Your task to perform on an android device: open app "Spotify" Image 0: 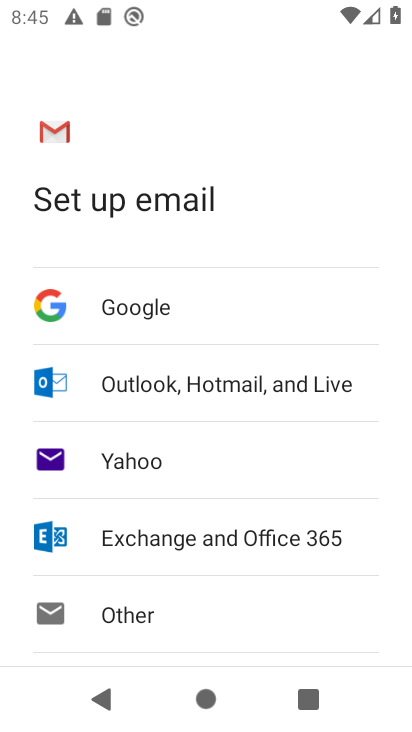
Step 0: press home button
Your task to perform on an android device: open app "Spotify" Image 1: 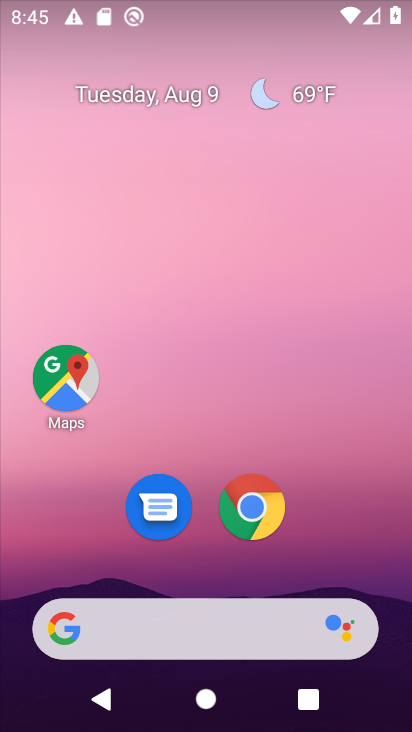
Step 1: drag from (153, 636) to (210, 134)
Your task to perform on an android device: open app "Spotify" Image 2: 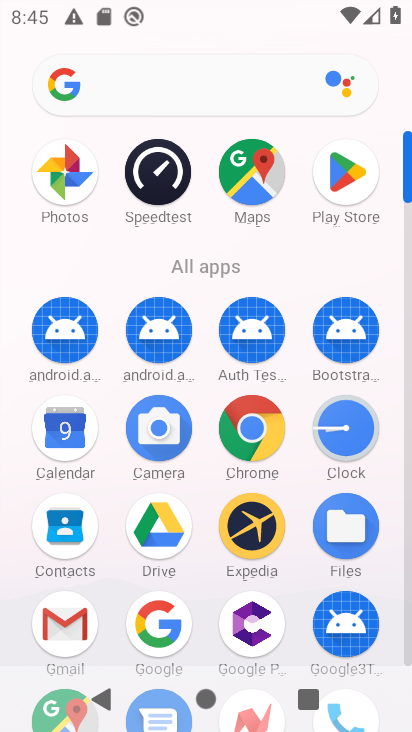
Step 2: click (350, 169)
Your task to perform on an android device: open app "Spotify" Image 3: 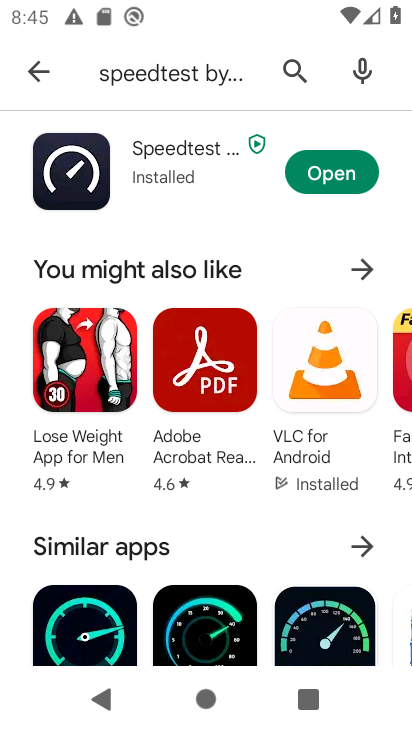
Step 3: click (292, 70)
Your task to perform on an android device: open app "Spotify" Image 4: 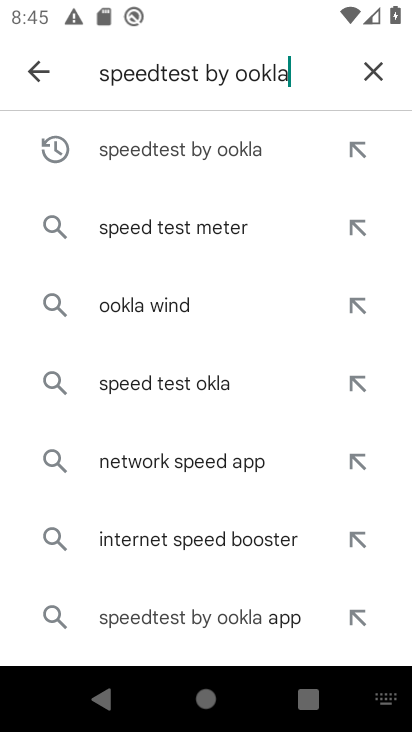
Step 4: click (372, 69)
Your task to perform on an android device: open app "Spotify" Image 5: 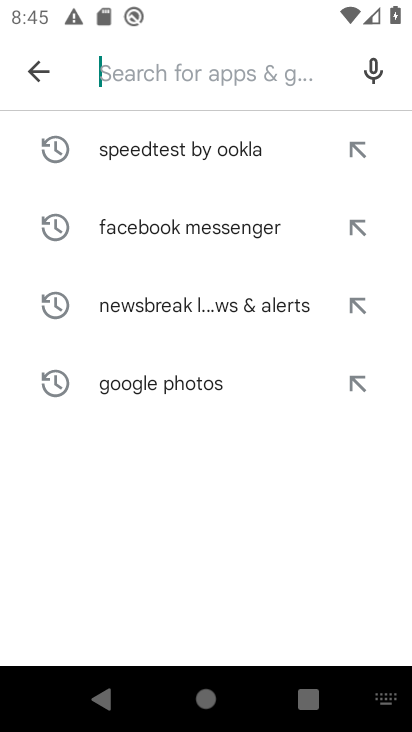
Step 5: type "Spotify"
Your task to perform on an android device: open app "Spotify" Image 6: 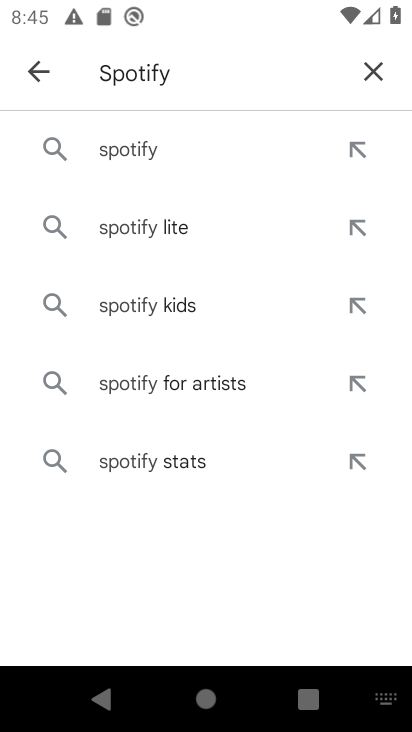
Step 6: click (132, 149)
Your task to perform on an android device: open app "Spotify" Image 7: 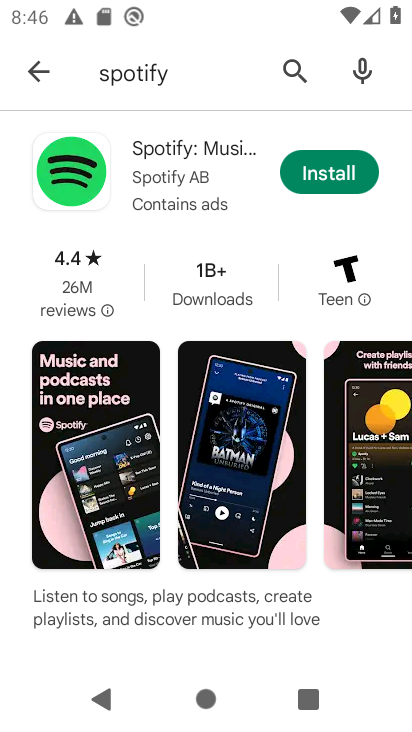
Step 7: task complete